Your task to perform on an android device: change the clock display to analog Image 0: 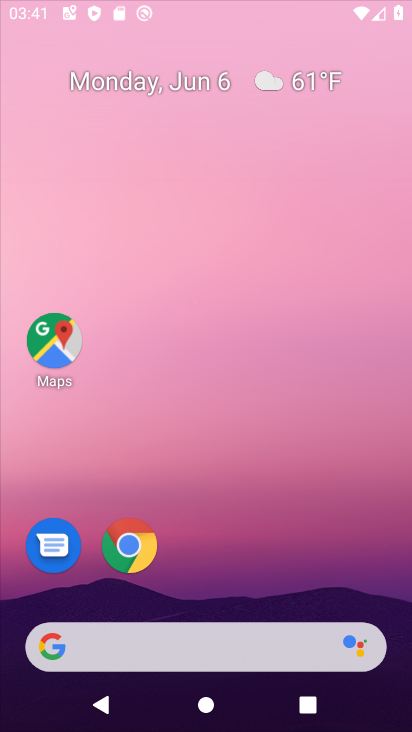
Step 0: press home button
Your task to perform on an android device: change the clock display to analog Image 1: 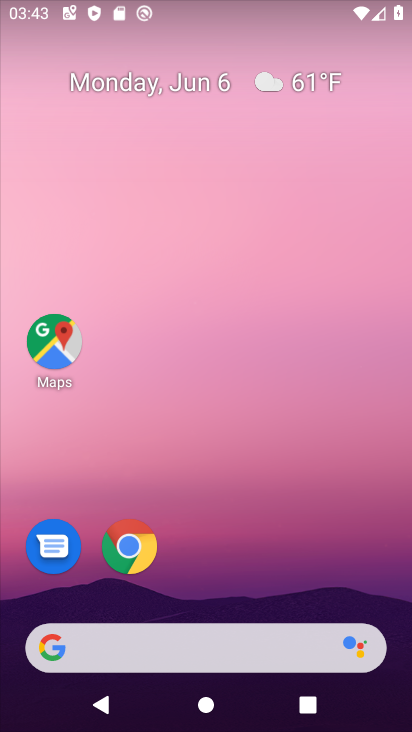
Step 1: drag from (284, 480) to (278, 5)
Your task to perform on an android device: change the clock display to analog Image 2: 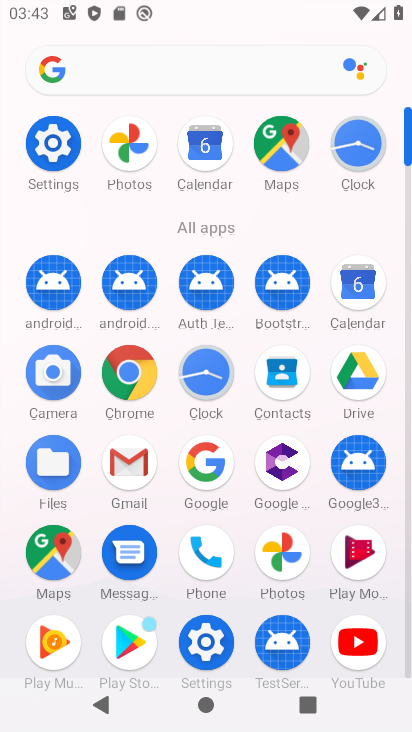
Step 2: click (357, 146)
Your task to perform on an android device: change the clock display to analog Image 3: 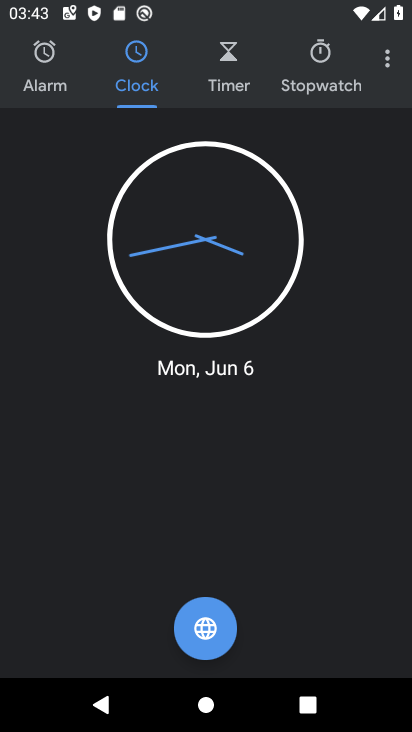
Step 3: click (395, 51)
Your task to perform on an android device: change the clock display to analog Image 4: 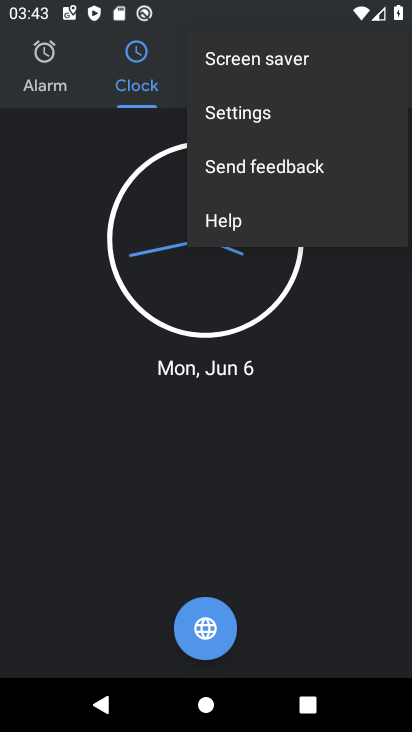
Step 4: click (243, 115)
Your task to perform on an android device: change the clock display to analog Image 5: 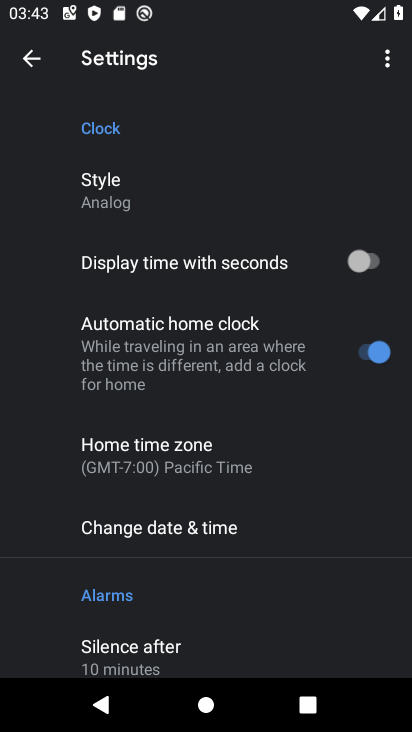
Step 5: click (114, 196)
Your task to perform on an android device: change the clock display to analog Image 6: 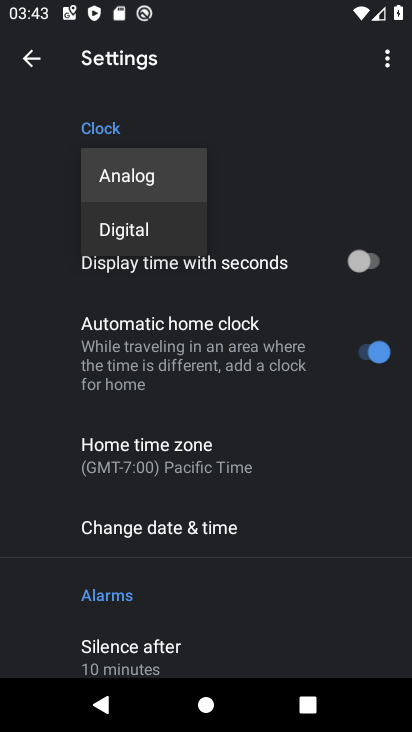
Step 6: task complete